Your task to perform on an android device: all mails in gmail Image 0: 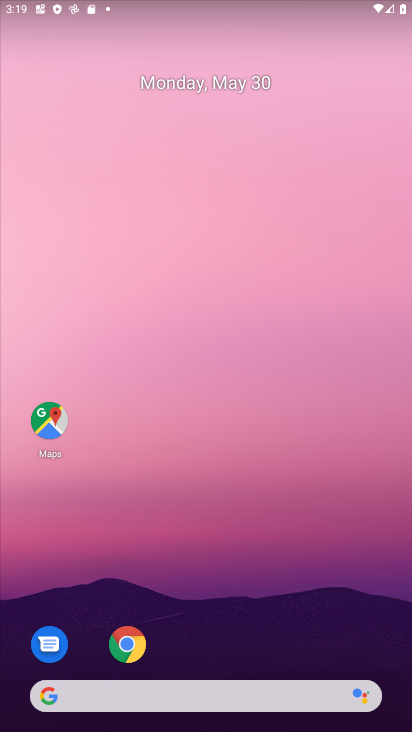
Step 0: drag from (241, 642) to (241, 17)
Your task to perform on an android device: all mails in gmail Image 1: 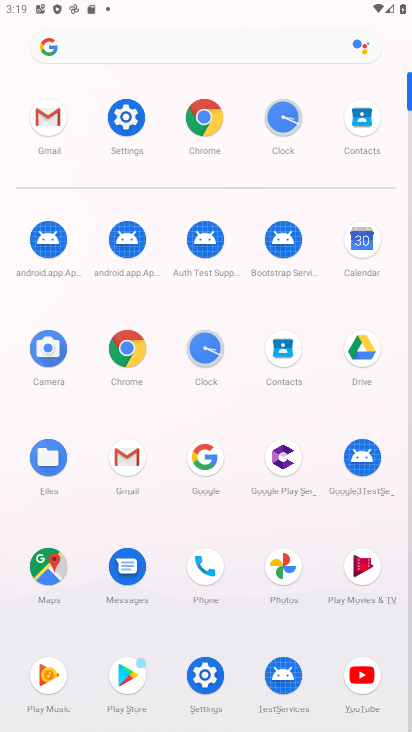
Step 1: click (54, 122)
Your task to perform on an android device: all mails in gmail Image 2: 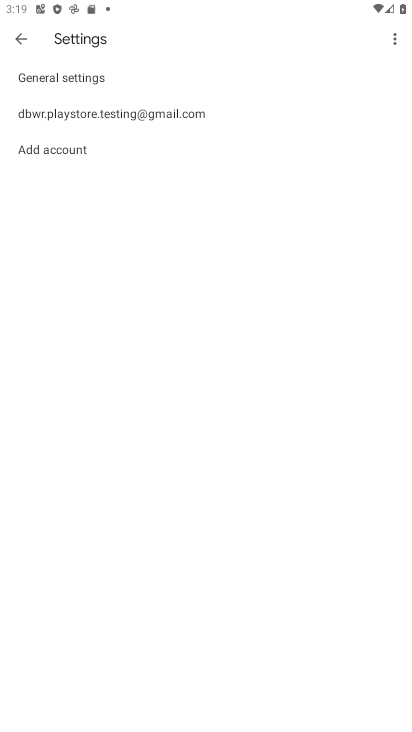
Step 2: task complete